Your task to perform on an android device: Check the weather Image 0: 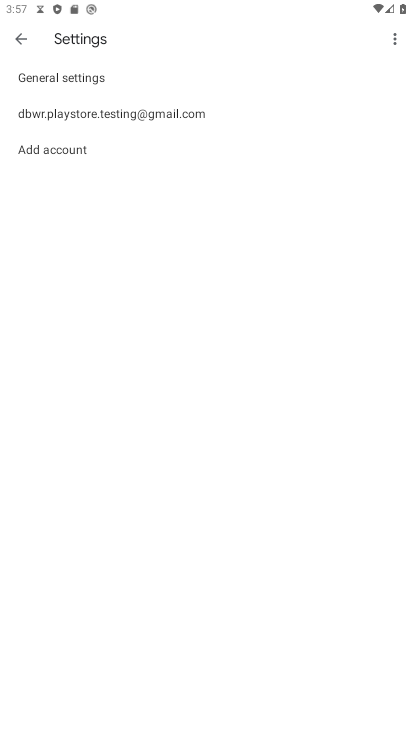
Step 0: press home button
Your task to perform on an android device: Check the weather Image 1: 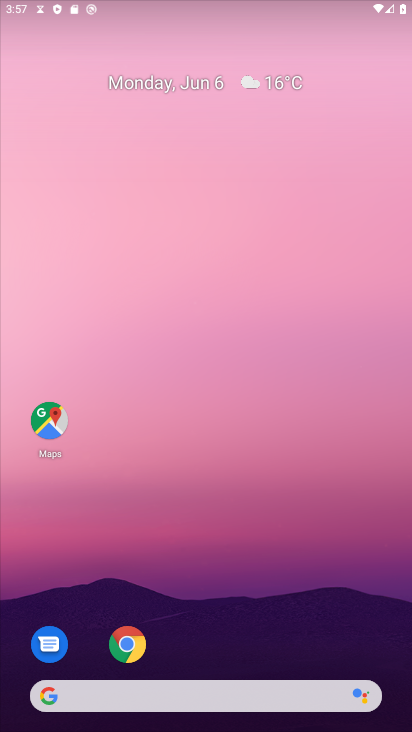
Step 1: click (135, 686)
Your task to perform on an android device: Check the weather Image 2: 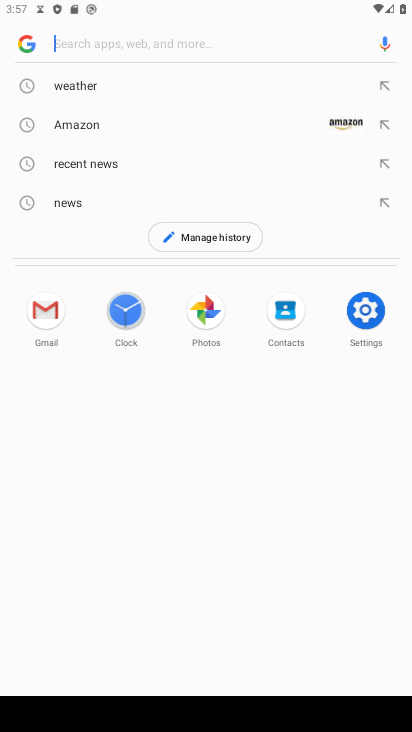
Step 2: click (81, 87)
Your task to perform on an android device: Check the weather Image 3: 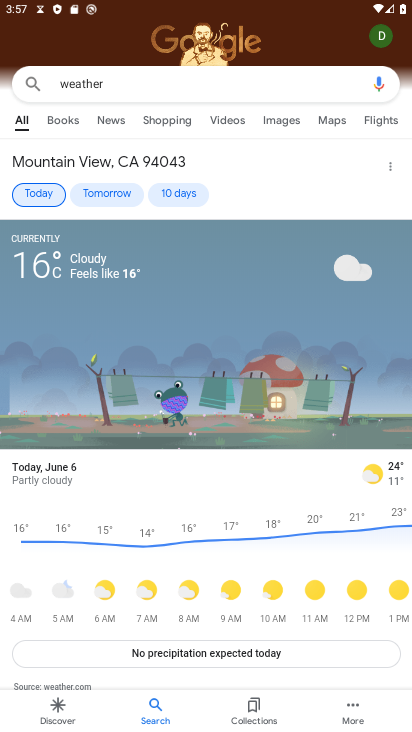
Step 3: drag from (333, 554) to (299, 294)
Your task to perform on an android device: Check the weather Image 4: 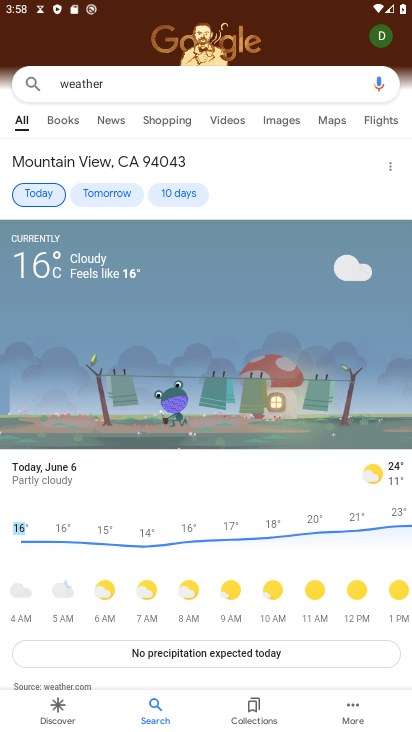
Step 4: drag from (178, 576) to (180, 290)
Your task to perform on an android device: Check the weather Image 5: 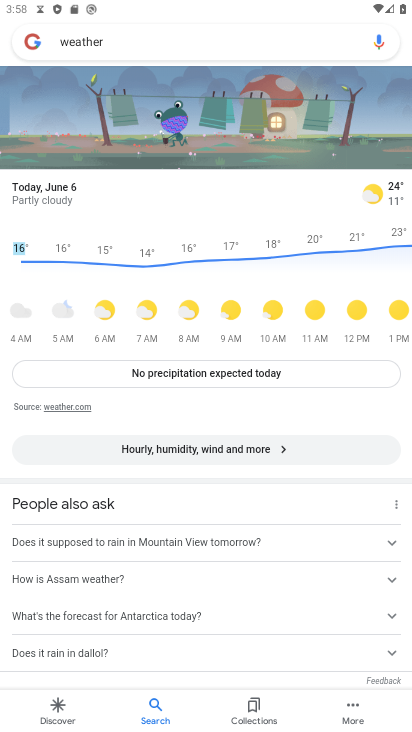
Step 5: drag from (138, 627) to (140, 422)
Your task to perform on an android device: Check the weather Image 6: 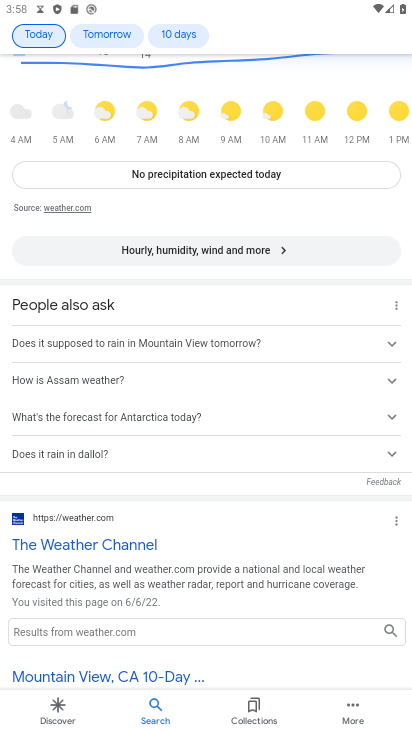
Step 6: click (250, 176)
Your task to perform on an android device: Check the weather Image 7: 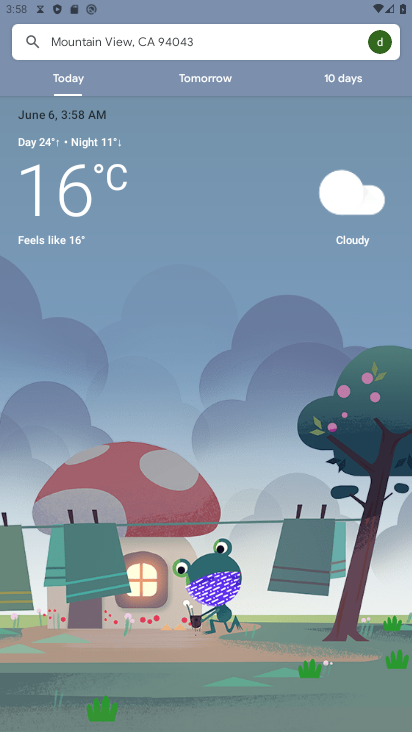
Step 7: task complete